Your task to perform on an android device: allow notifications from all sites in the chrome app Image 0: 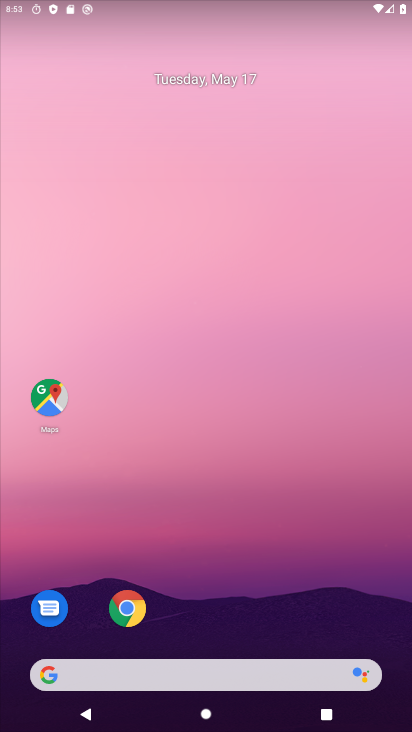
Step 0: drag from (255, 579) to (243, 185)
Your task to perform on an android device: allow notifications from all sites in the chrome app Image 1: 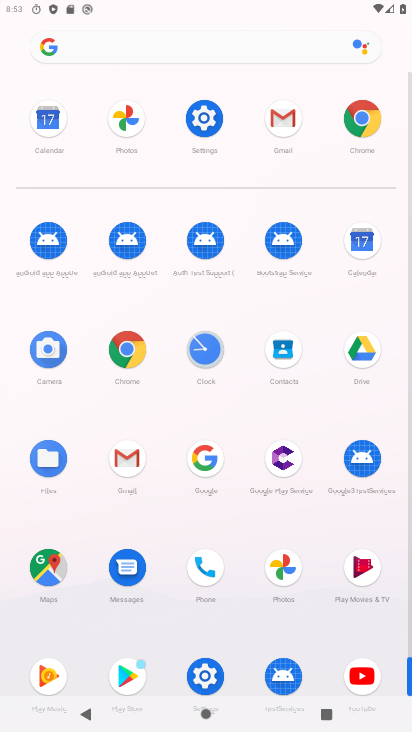
Step 1: click (130, 351)
Your task to perform on an android device: allow notifications from all sites in the chrome app Image 2: 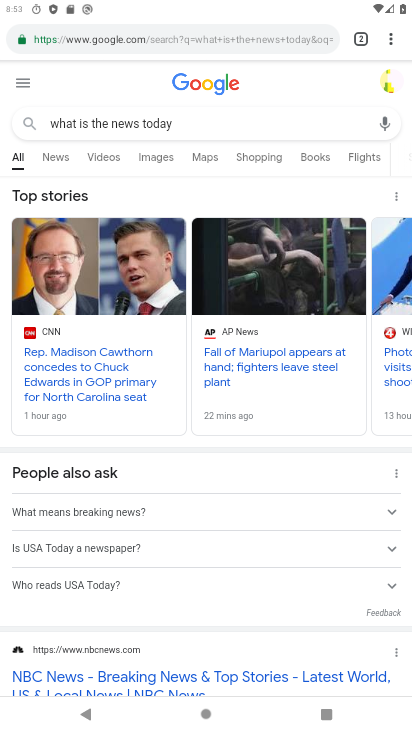
Step 2: drag from (394, 49) to (259, 430)
Your task to perform on an android device: allow notifications from all sites in the chrome app Image 3: 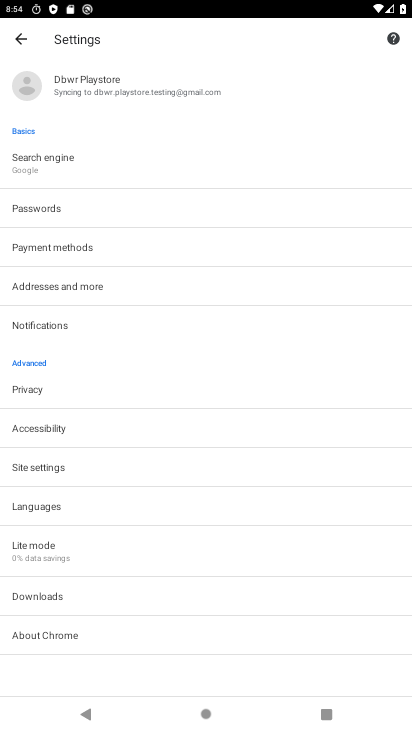
Step 3: click (70, 459)
Your task to perform on an android device: allow notifications from all sites in the chrome app Image 4: 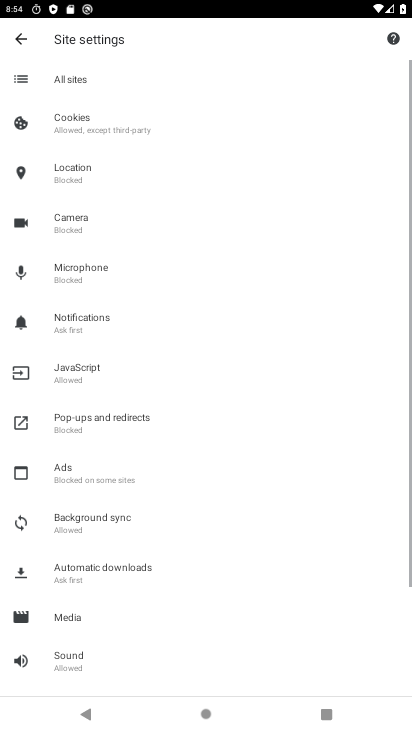
Step 4: click (114, 75)
Your task to perform on an android device: allow notifications from all sites in the chrome app Image 5: 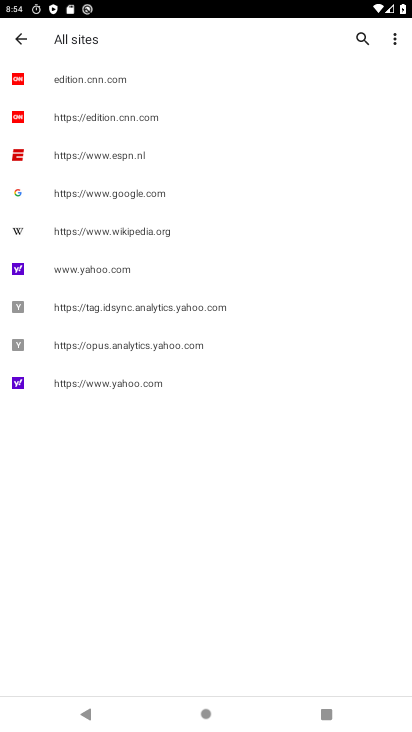
Step 5: task complete